Your task to perform on an android device: open app "Messenger Lite" Image 0: 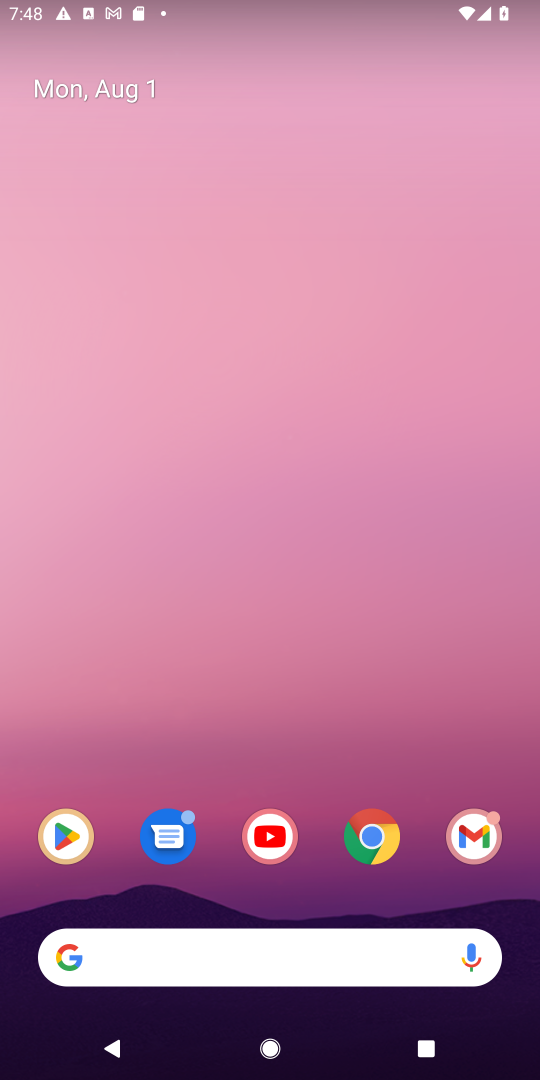
Step 0: press home button
Your task to perform on an android device: open app "Messenger Lite" Image 1: 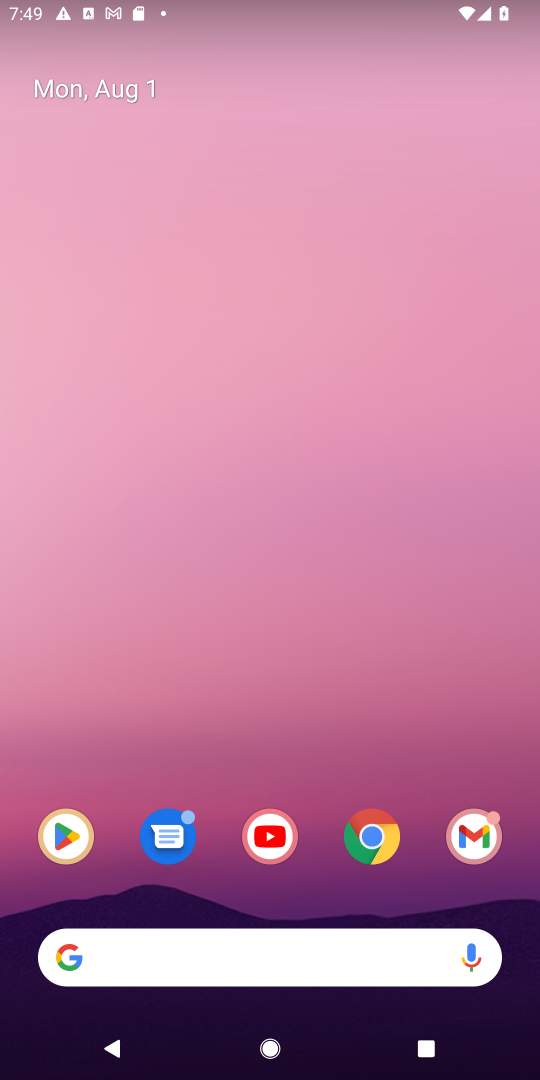
Step 1: click (72, 828)
Your task to perform on an android device: open app "Messenger Lite" Image 2: 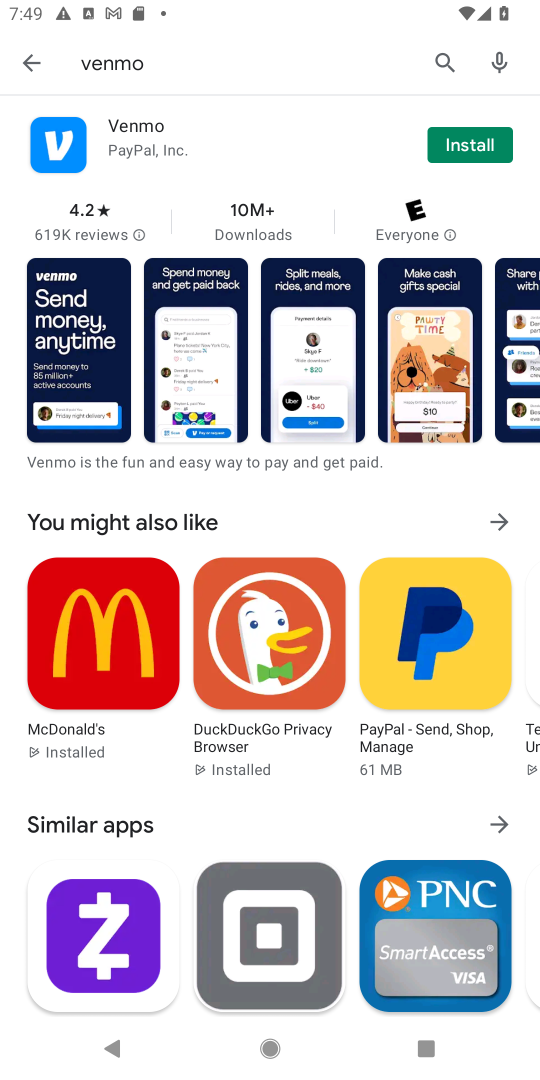
Step 2: click (447, 66)
Your task to perform on an android device: open app "Messenger Lite" Image 3: 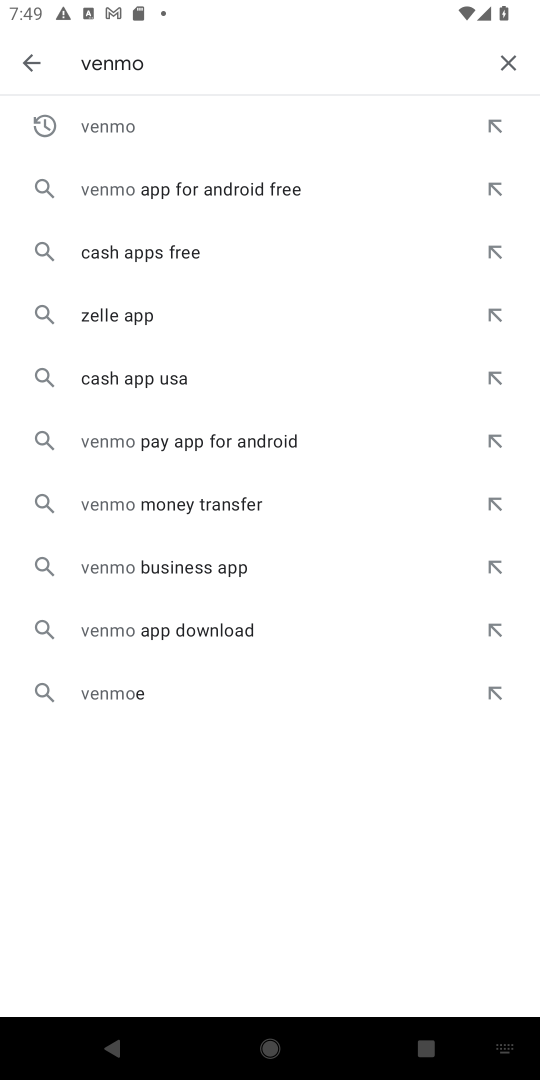
Step 3: click (498, 53)
Your task to perform on an android device: open app "Messenger Lite" Image 4: 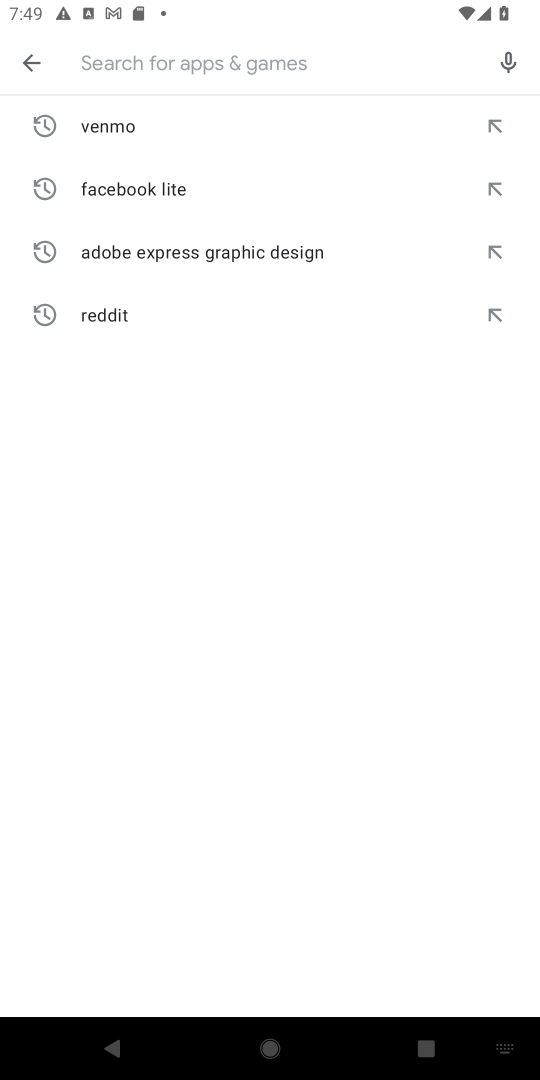
Step 4: type "Messenger Lite"
Your task to perform on an android device: open app "Messenger Lite" Image 5: 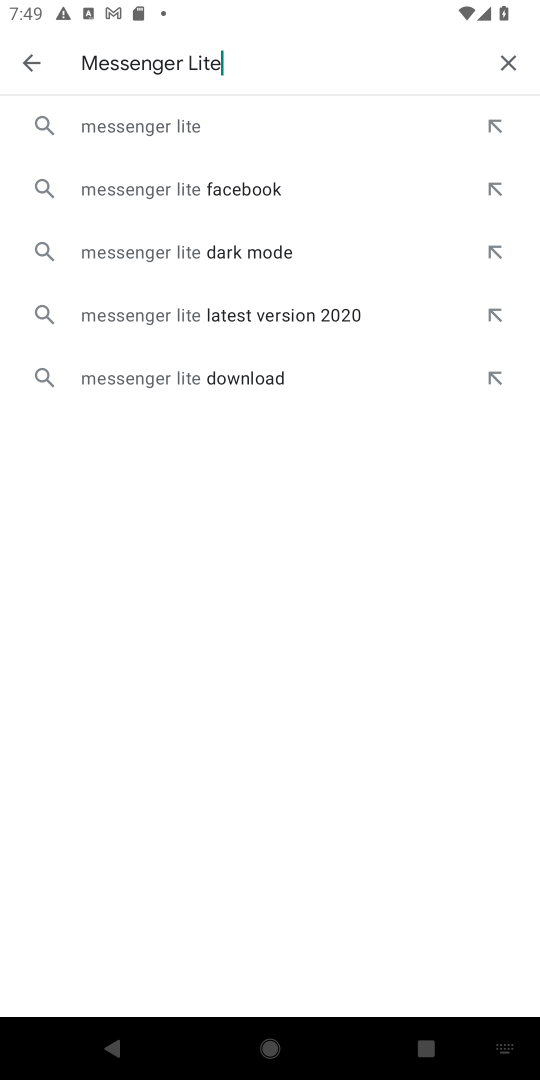
Step 5: click (152, 122)
Your task to perform on an android device: open app "Messenger Lite" Image 6: 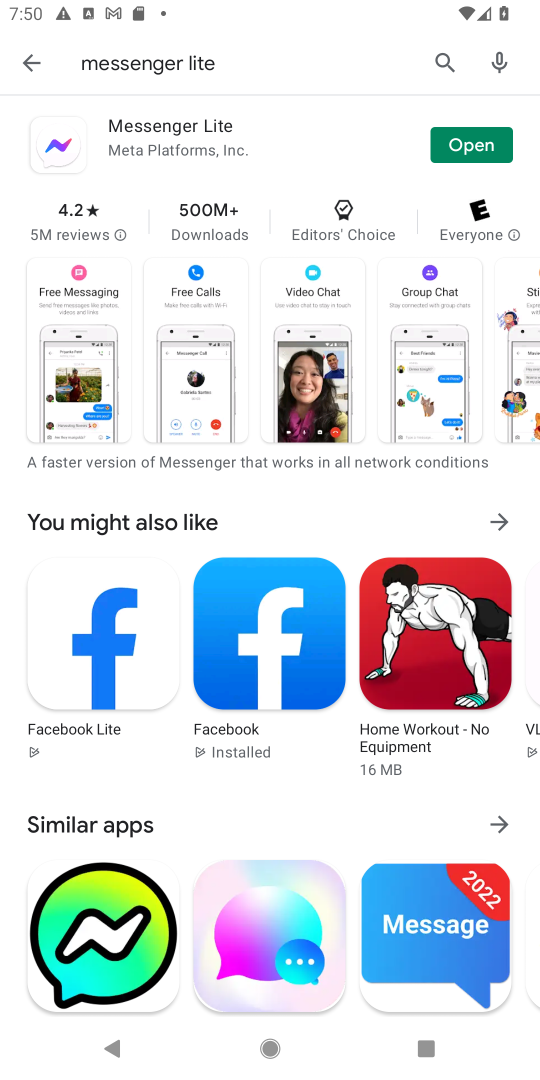
Step 6: click (486, 140)
Your task to perform on an android device: open app "Messenger Lite" Image 7: 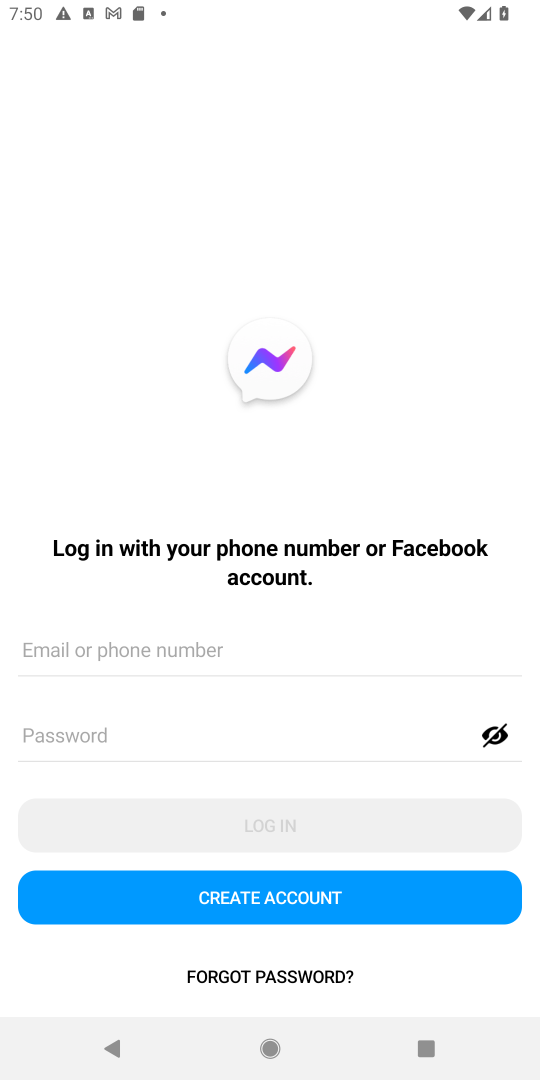
Step 7: task complete